Your task to perform on an android device: check android version Image 0: 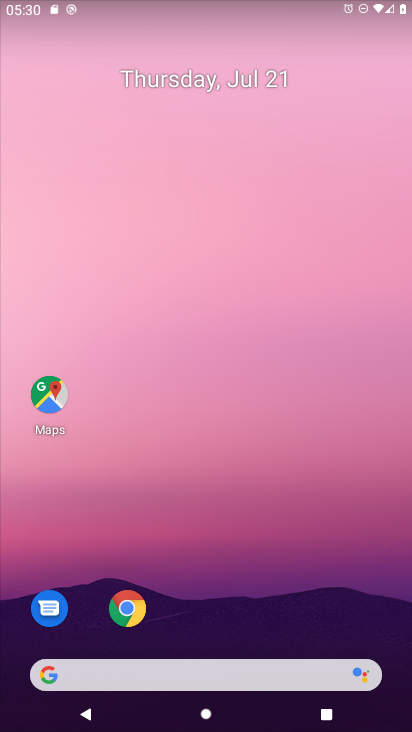
Step 0: drag from (128, 661) to (204, 127)
Your task to perform on an android device: check android version Image 1: 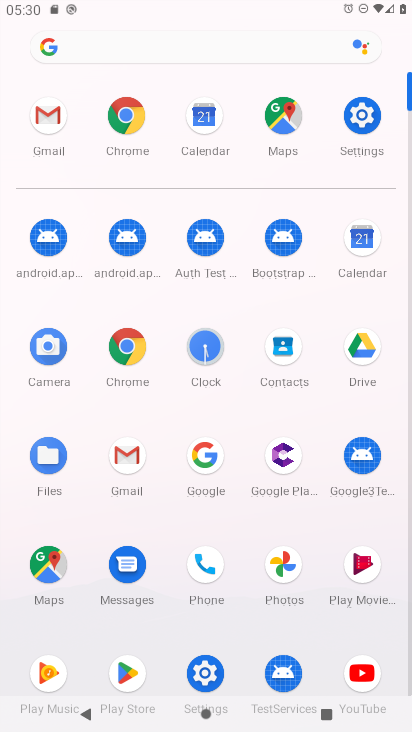
Step 1: click (360, 119)
Your task to perform on an android device: check android version Image 2: 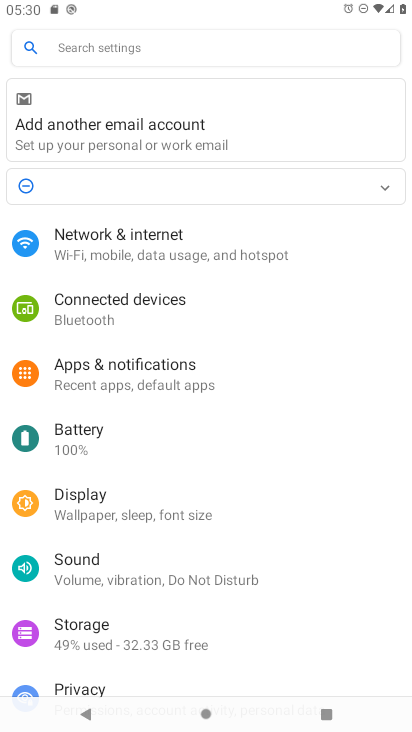
Step 2: drag from (205, 667) to (173, 200)
Your task to perform on an android device: check android version Image 3: 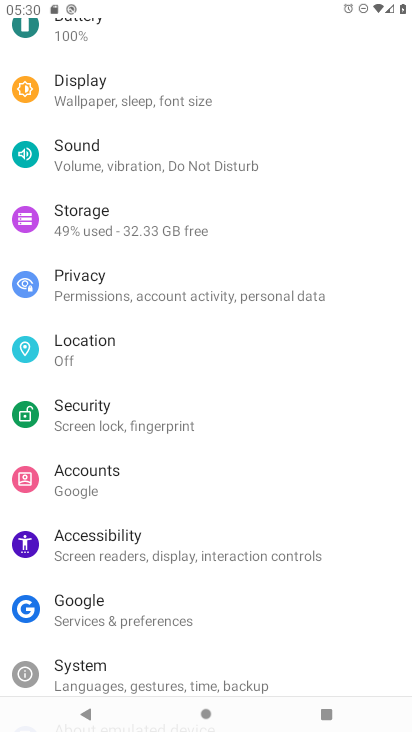
Step 3: drag from (199, 644) to (257, 329)
Your task to perform on an android device: check android version Image 4: 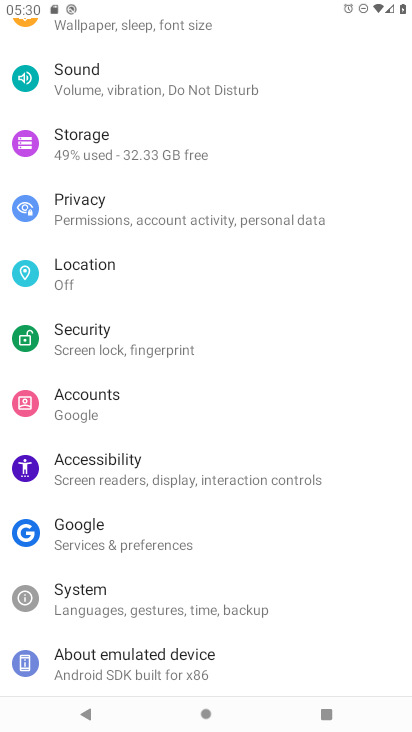
Step 4: click (181, 669)
Your task to perform on an android device: check android version Image 5: 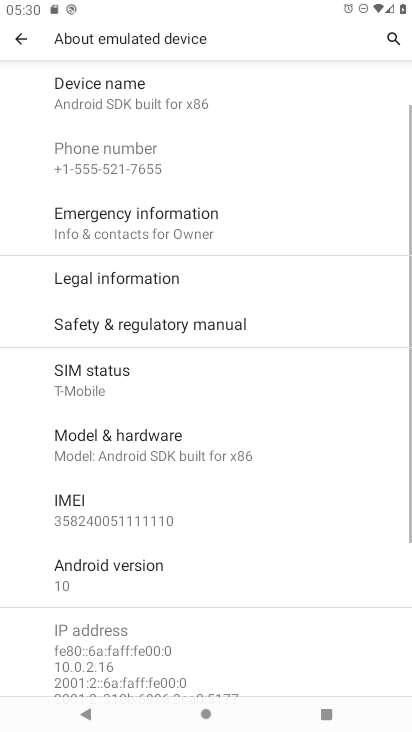
Step 5: click (100, 582)
Your task to perform on an android device: check android version Image 6: 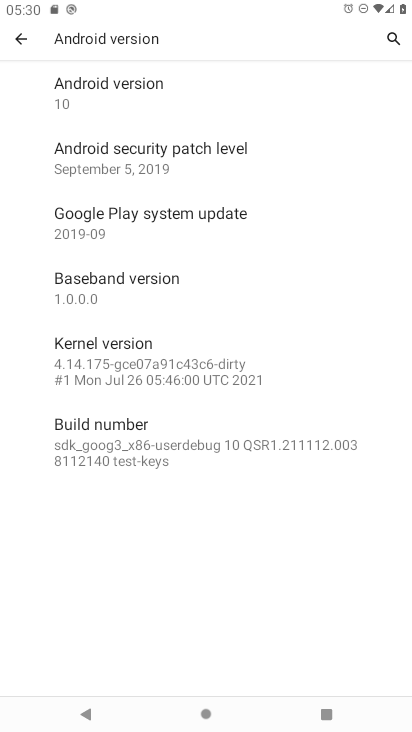
Step 6: task complete